Your task to perform on an android device: find photos in the google photos app Image 0: 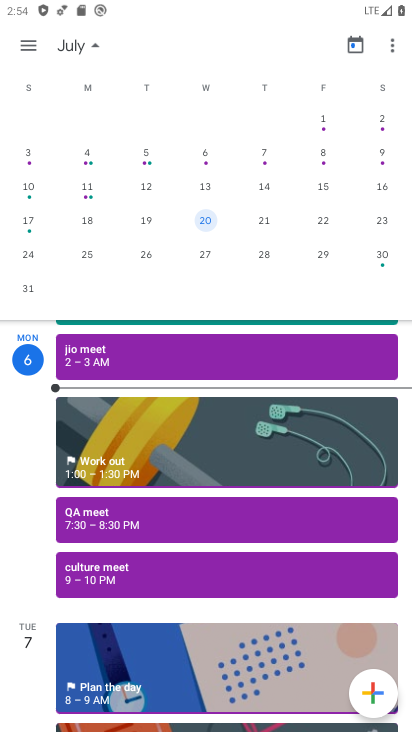
Step 0: press home button
Your task to perform on an android device: find photos in the google photos app Image 1: 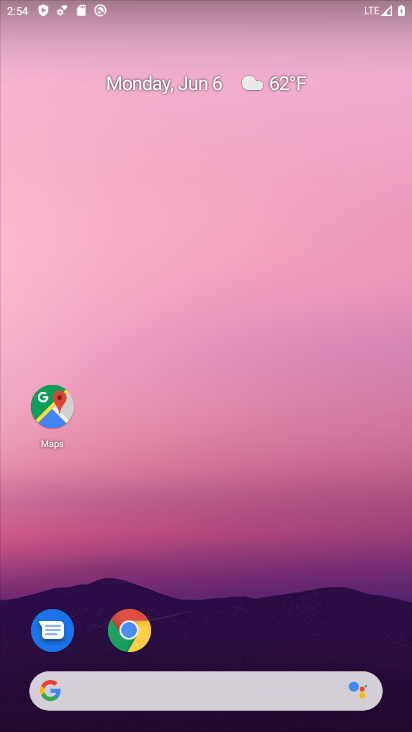
Step 1: drag from (357, 614) to (289, 77)
Your task to perform on an android device: find photos in the google photos app Image 2: 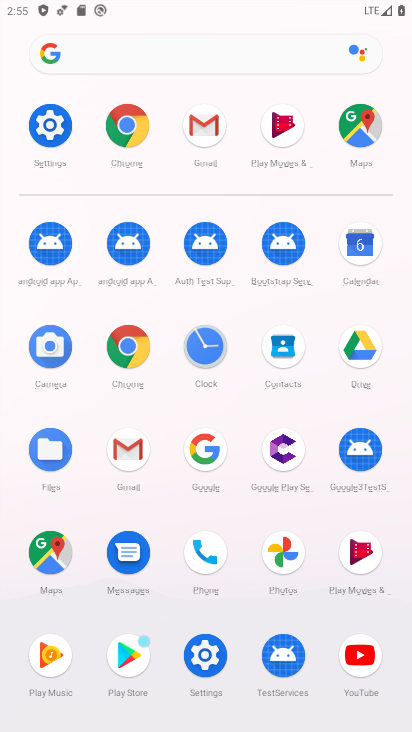
Step 2: click (273, 548)
Your task to perform on an android device: find photos in the google photos app Image 3: 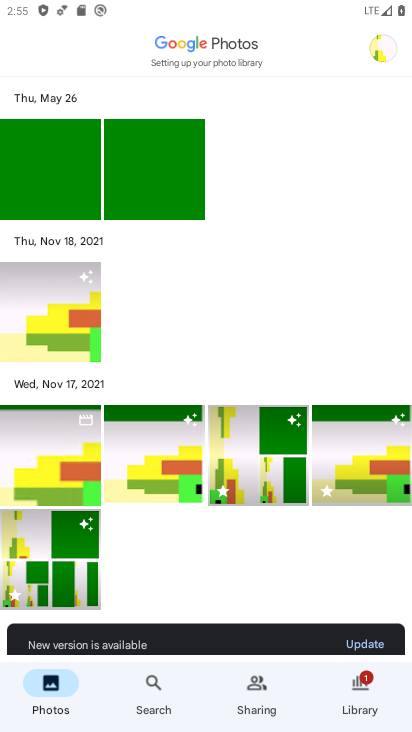
Step 3: task complete